Your task to perform on an android device: Open sound settings Image 0: 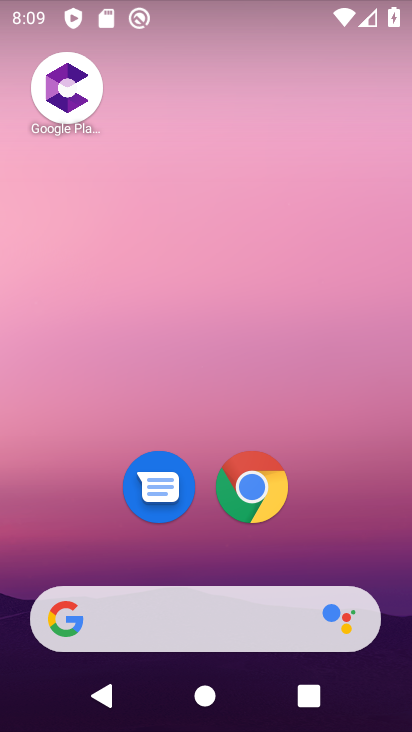
Step 0: drag from (283, 533) to (215, 140)
Your task to perform on an android device: Open sound settings Image 1: 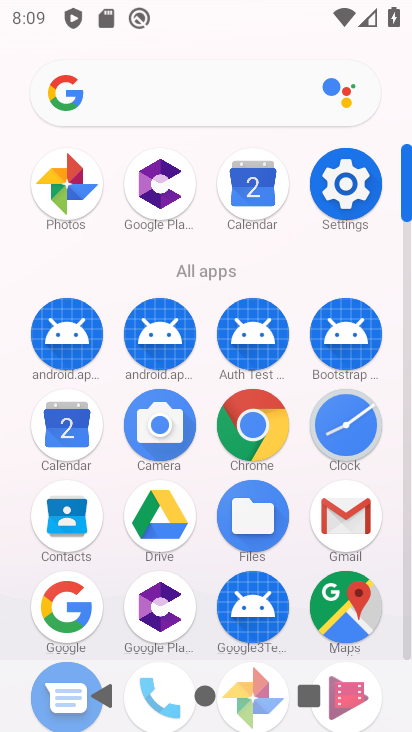
Step 1: click (355, 206)
Your task to perform on an android device: Open sound settings Image 2: 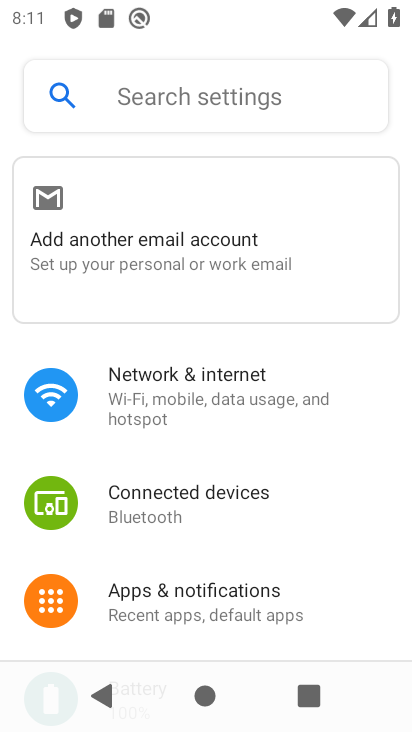
Step 2: press home button
Your task to perform on an android device: Open sound settings Image 3: 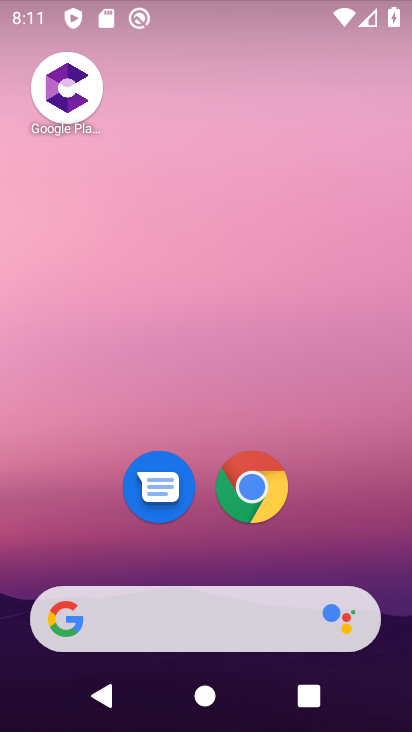
Step 3: drag from (280, 612) to (256, 102)
Your task to perform on an android device: Open sound settings Image 4: 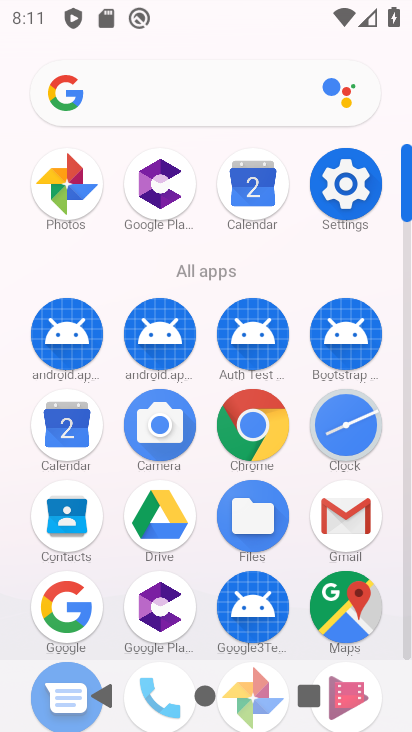
Step 4: click (344, 167)
Your task to perform on an android device: Open sound settings Image 5: 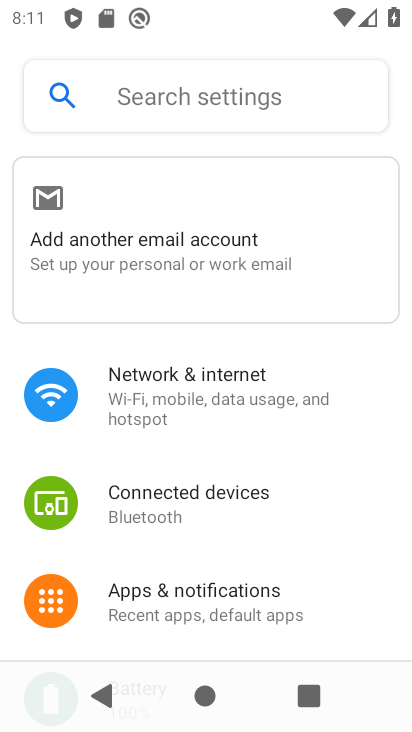
Step 5: drag from (263, 439) to (299, 168)
Your task to perform on an android device: Open sound settings Image 6: 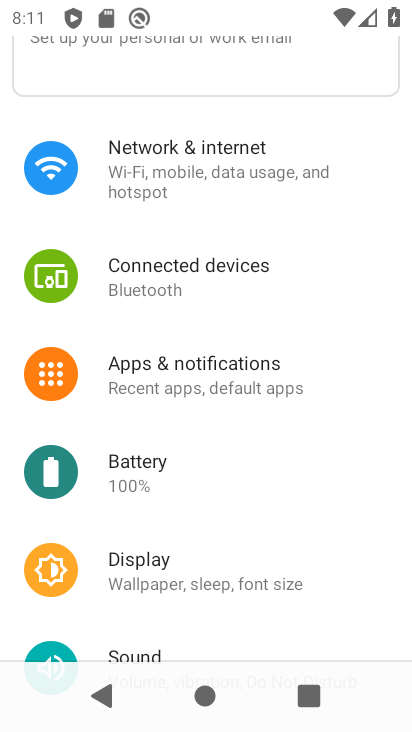
Step 6: drag from (282, 415) to (312, 232)
Your task to perform on an android device: Open sound settings Image 7: 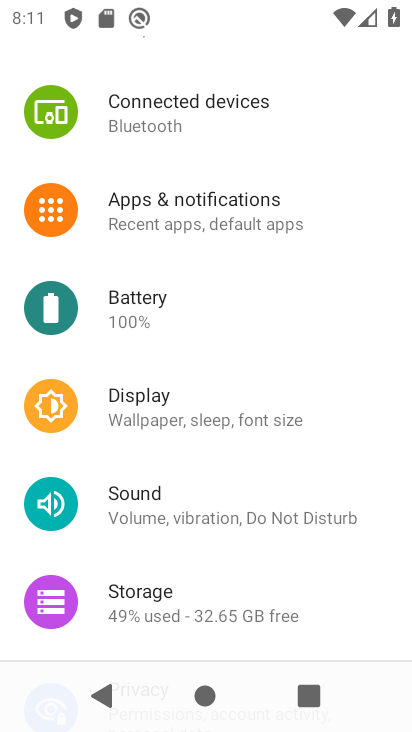
Step 7: click (317, 496)
Your task to perform on an android device: Open sound settings Image 8: 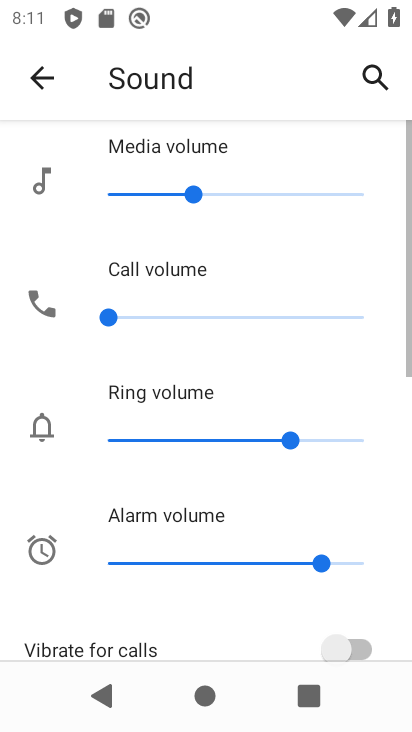
Step 8: task complete